Your task to perform on an android device: open sync settings in chrome Image 0: 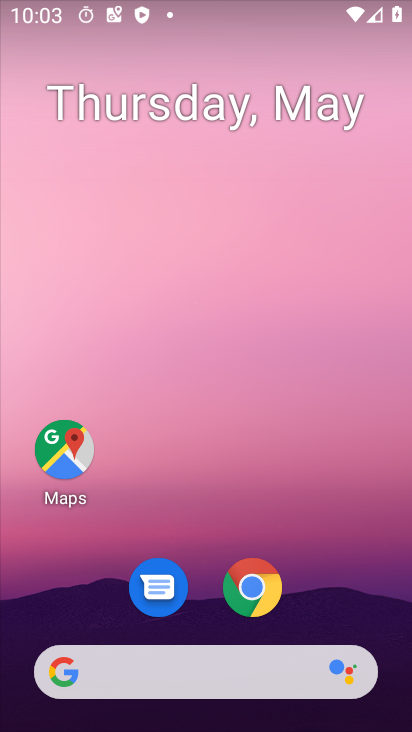
Step 0: click (248, 587)
Your task to perform on an android device: open sync settings in chrome Image 1: 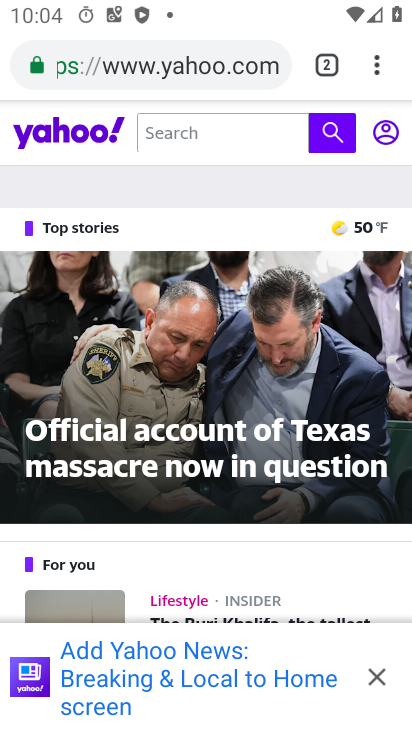
Step 1: click (381, 67)
Your task to perform on an android device: open sync settings in chrome Image 2: 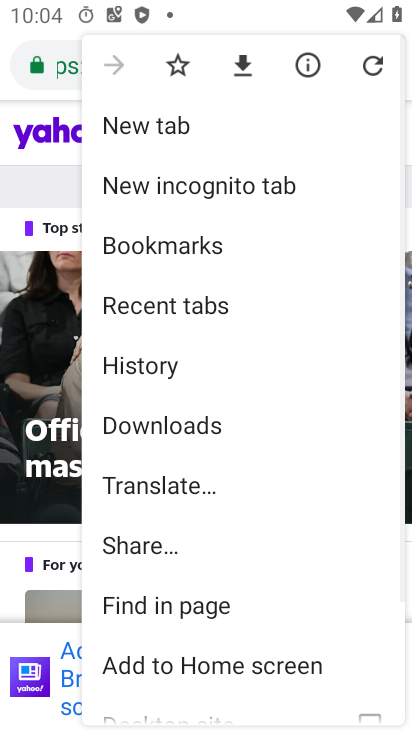
Step 2: drag from (280, 644) to (271, 165)
Your task to perform on an android device: open sync settings in chrome Image 3: 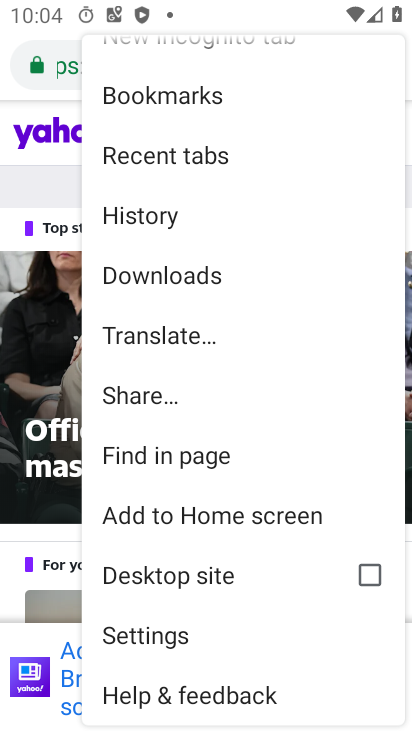
Step 3: click (145, 641)
Your task to perform on an android device: open sync settings in chrome Image 4: 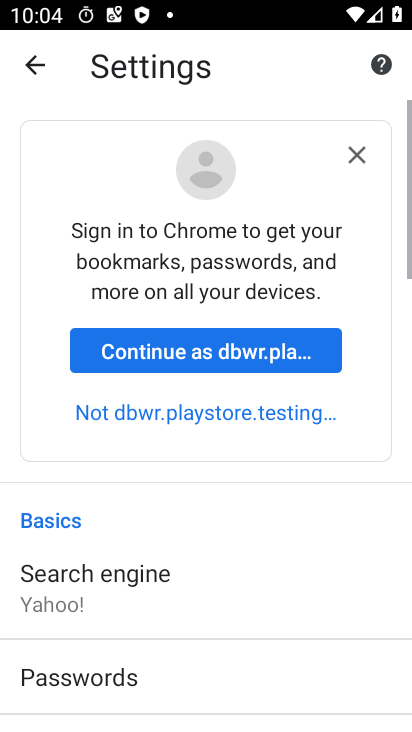
Step 4: click (167, 351)
Your task to perform on an android device: open sync settings in chrome Image 5: 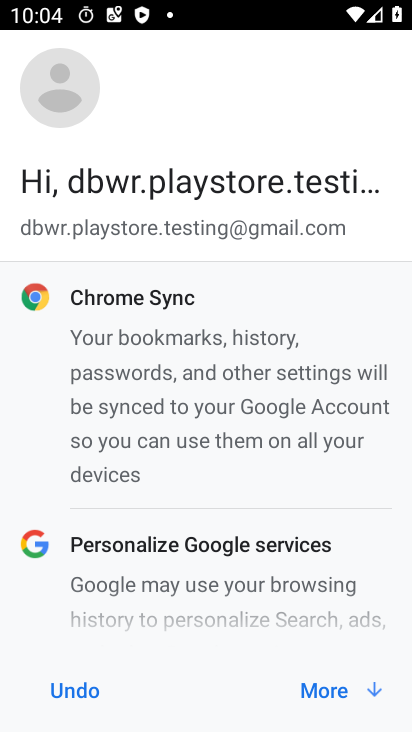
Step 5: click (343, 697)
Your task to perform on an android device: open sync settings in chrome Image 6: 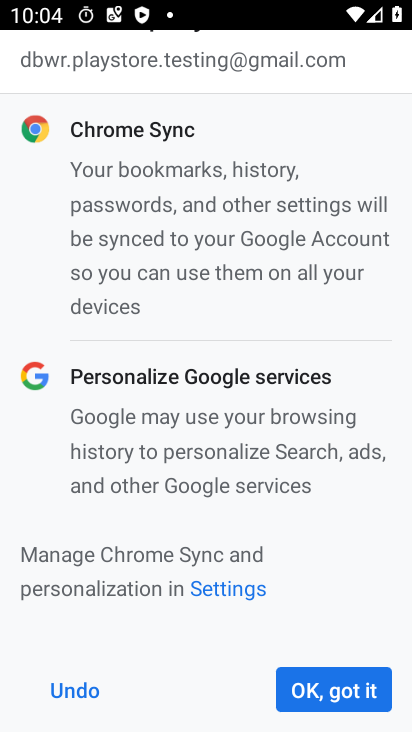
Step 6: click (343, 697)
Your task to perform on an android device: open sync settings in chrome Image 7: 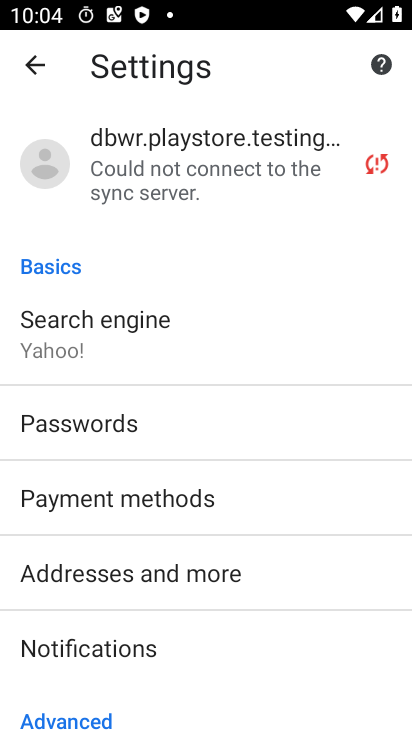
Step 7: click (158, 177)
Your task to perform on an android device: open sync settings in chrome Image 8: 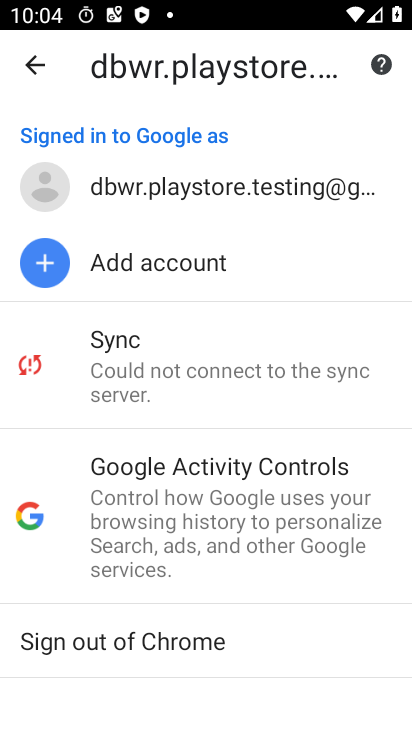
Step 8: click (127, 362)
Your task to perform on an android device: open sync settings in chrome Image 9: 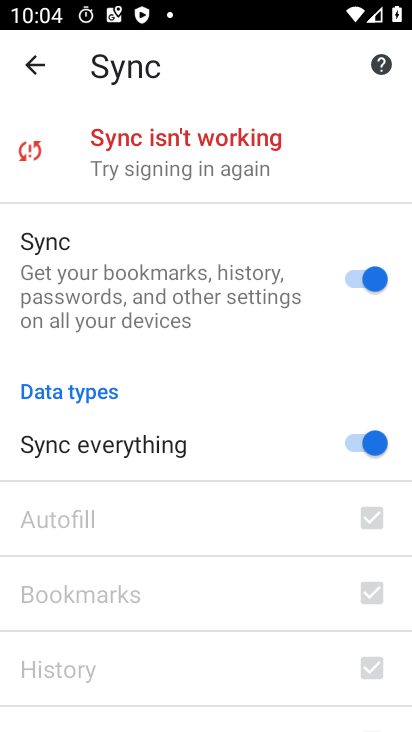
Step 9: task complete